Your task to perform on an android device: Open settings on Google Maps Image 0: 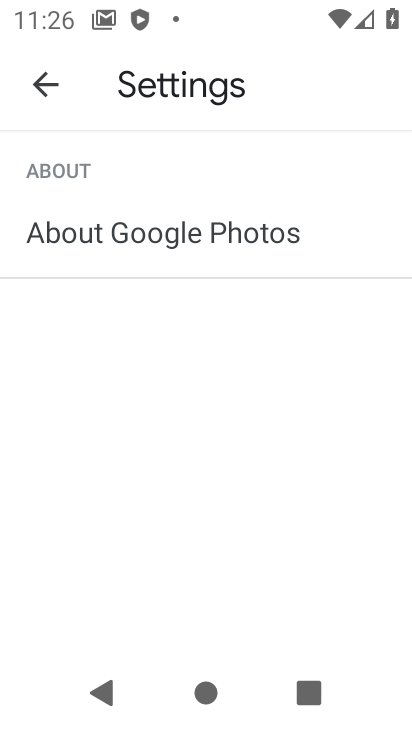
Step 0: press home button
Your task to perform on an android device: Open settings on Google Maps Image 1: 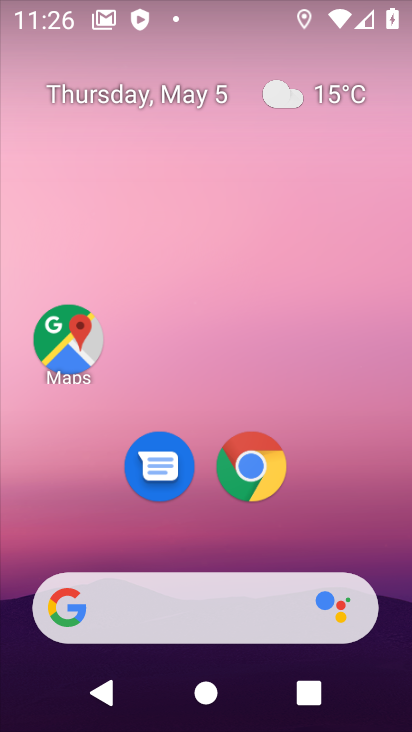
Step 1: click (72, 343)
Your task to perform on an android device: Open settings on Google Maps Image 2: 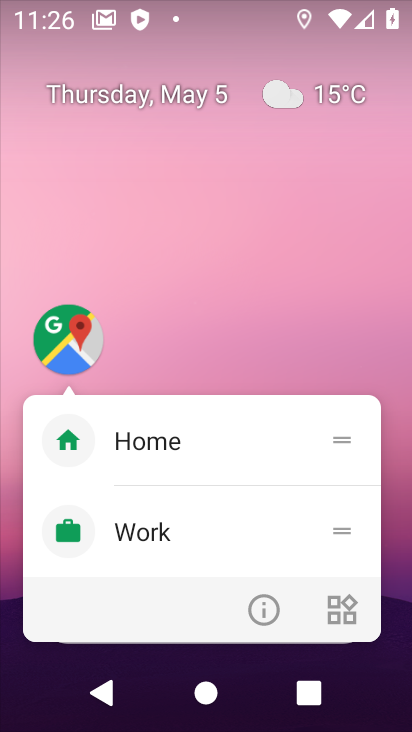
Step 2: click (262, 615)
Your task to perform on an android device: Open settings on Google Maps Image 3: 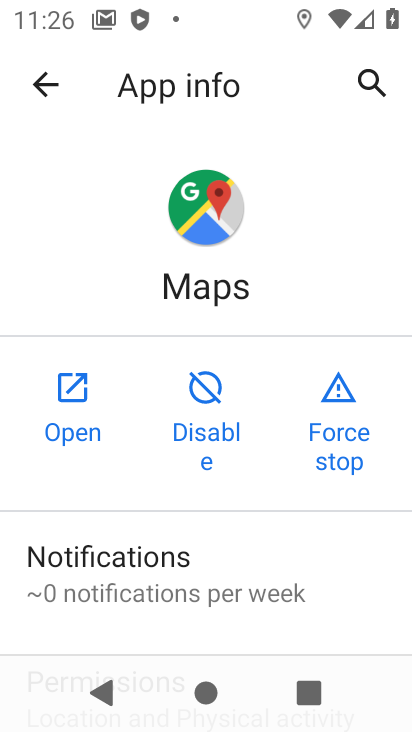
Step 3: click (76, 399)
Your task to perform on an android device: Open settings on Google Maps Image 4: 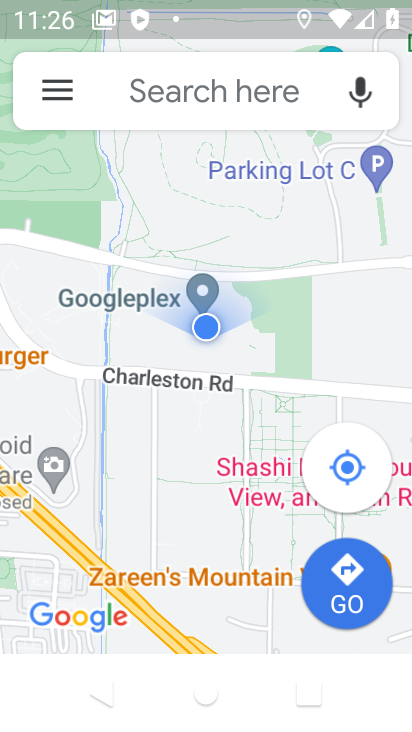
Step 4: click (54, 76)
Your task to perform on an android device: Open settings on Google Maps Image 5: 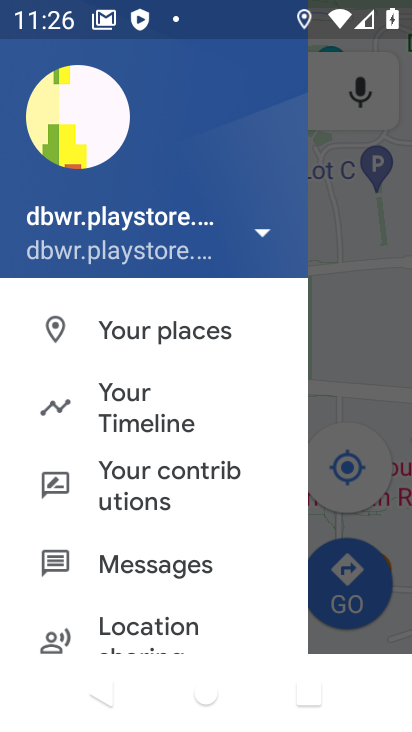
Step 5: drag from (165, 603) to (155, 78)
Your task to perform on an android device: Open settings on Google Maps Image 6: 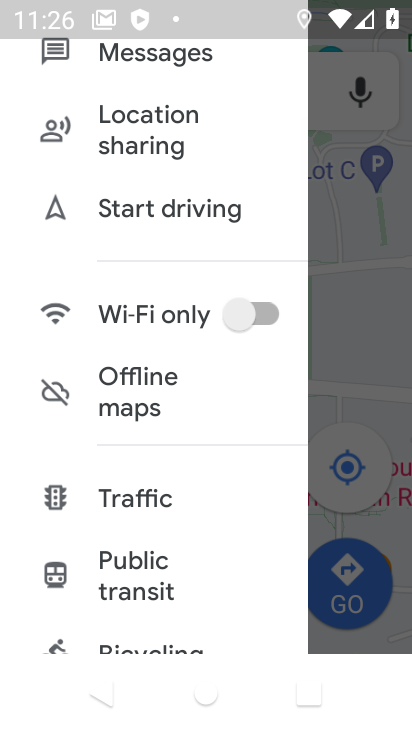
Step 6: drag from (166, 570) to (218, 194)
Your task to perform on an android device: Open settings on Google Maps Image 7: 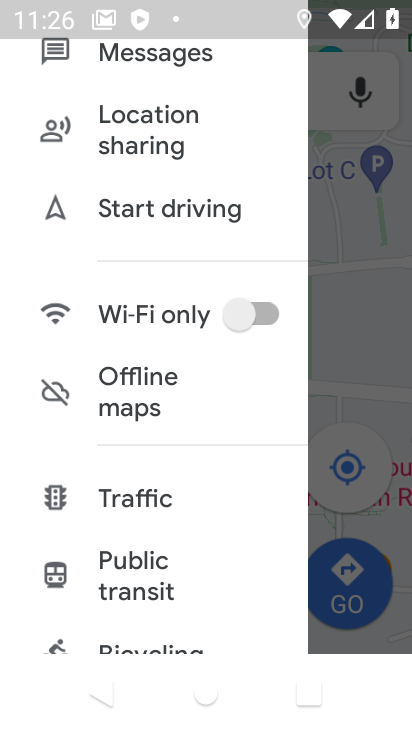
Step 7: drag from (130, 622) to (139, 185)
Your task to perform on an android device: Open settings on Google Maps Image 8: 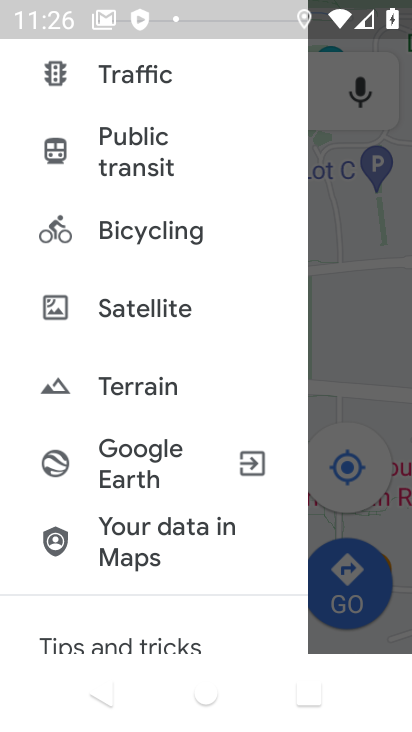
Step 8: drag from (145, 597) to (168, 209)
Your task to perform on an android device: Open settings on Google Maps Image 9: 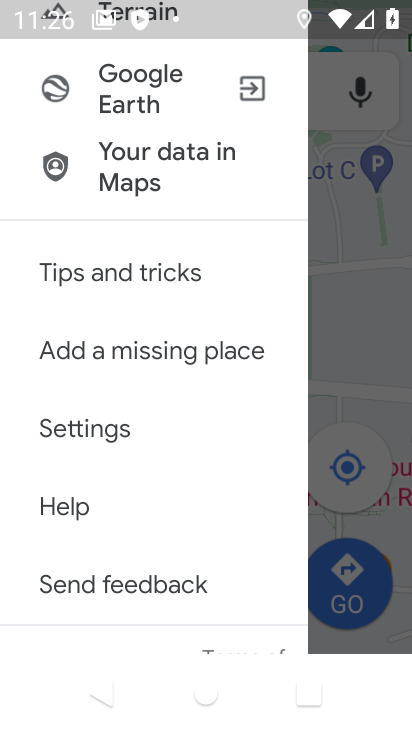
Step 9: click (106, 435)
Your task to perform on an android device: Open settings on Google Maps Image 10: 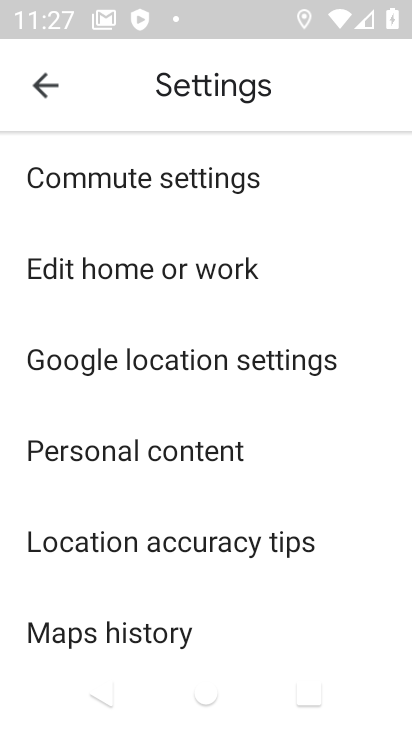
Step 10: task complete